Your task to perform on an android device: Open Google Image 0: 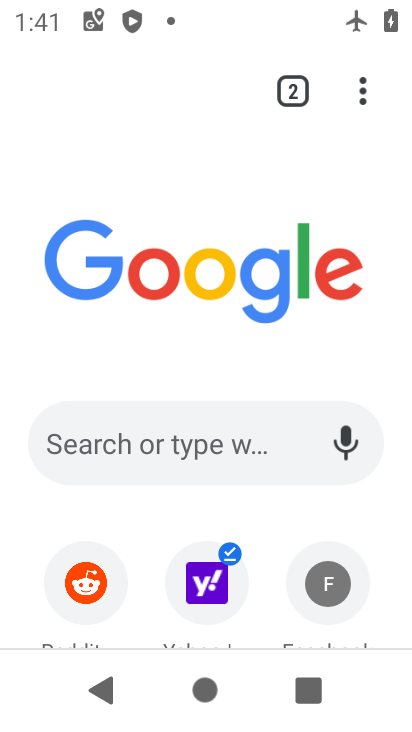
Step 0: press home button
Your task to perform on an android device: Open Google Image 1: 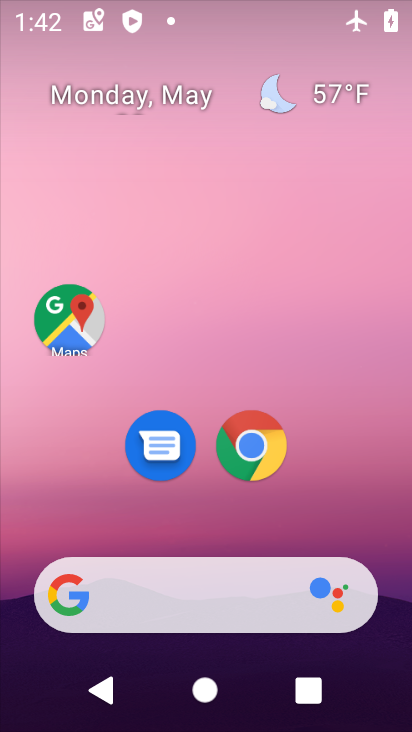
Step 1: drag from (218, 515) to (248, 31)
Your task to perform on an android device: Open Google Image 2: 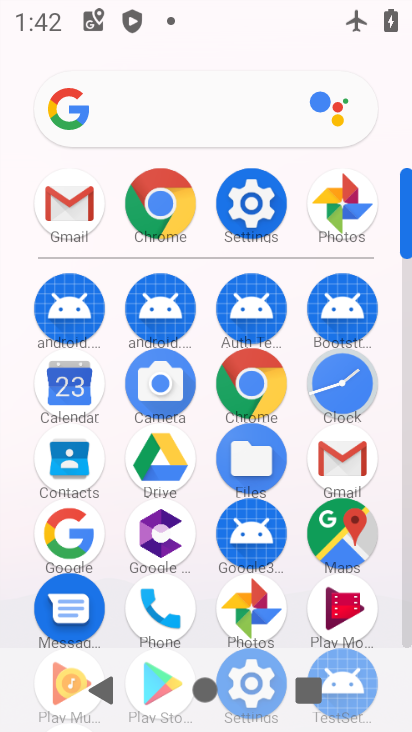
Step 2: click (68, 539)
Your task to perform on an android device: Open Google Image 3: 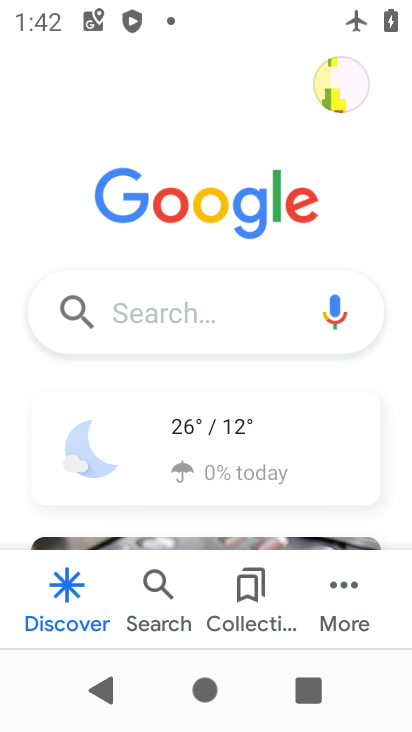
Step 3: task complete